Your task to perform on an android device: uninstall "Life360: Find Family & Friends" Image 0: 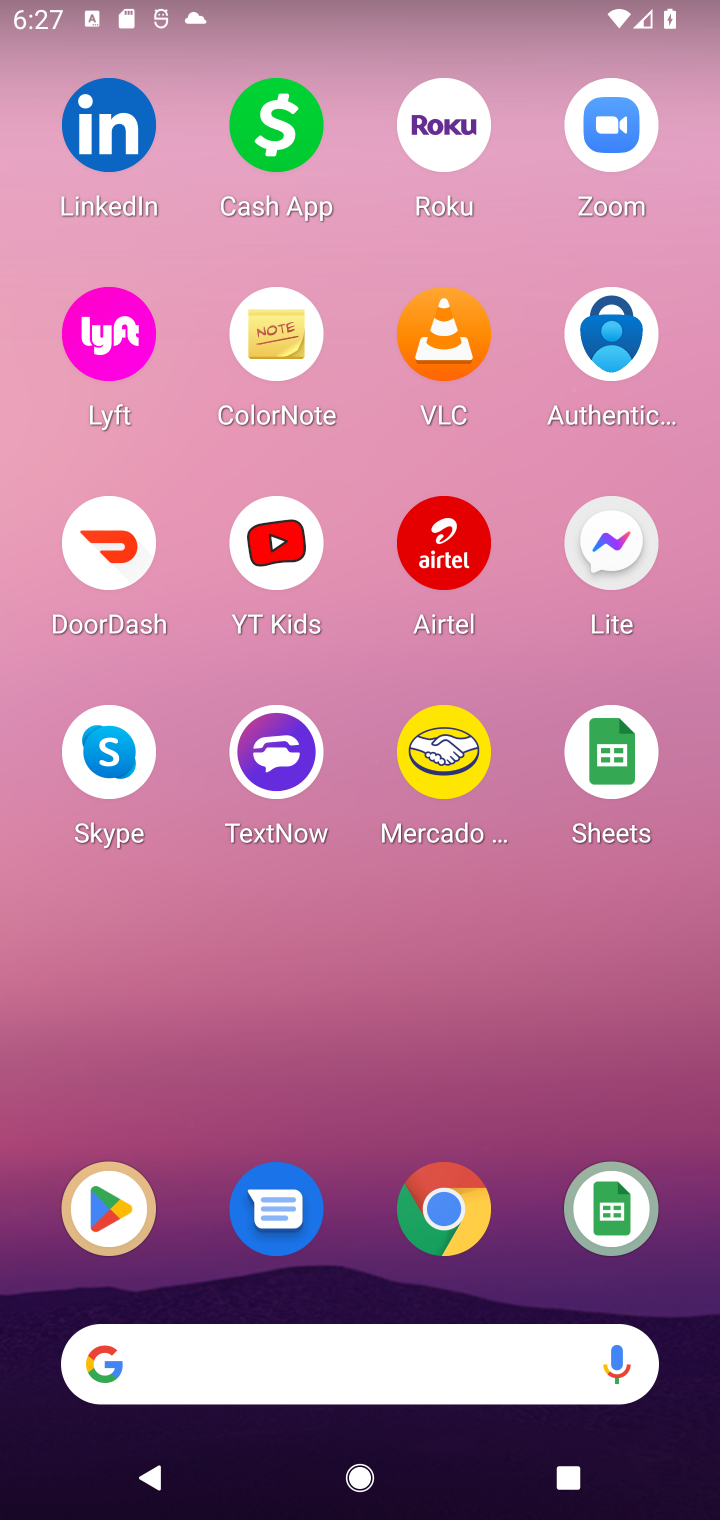
Step 0: click (104, 1222)
Your task to perform on an android device: uninstall "Life360: Find Family & Friends" Image 1: 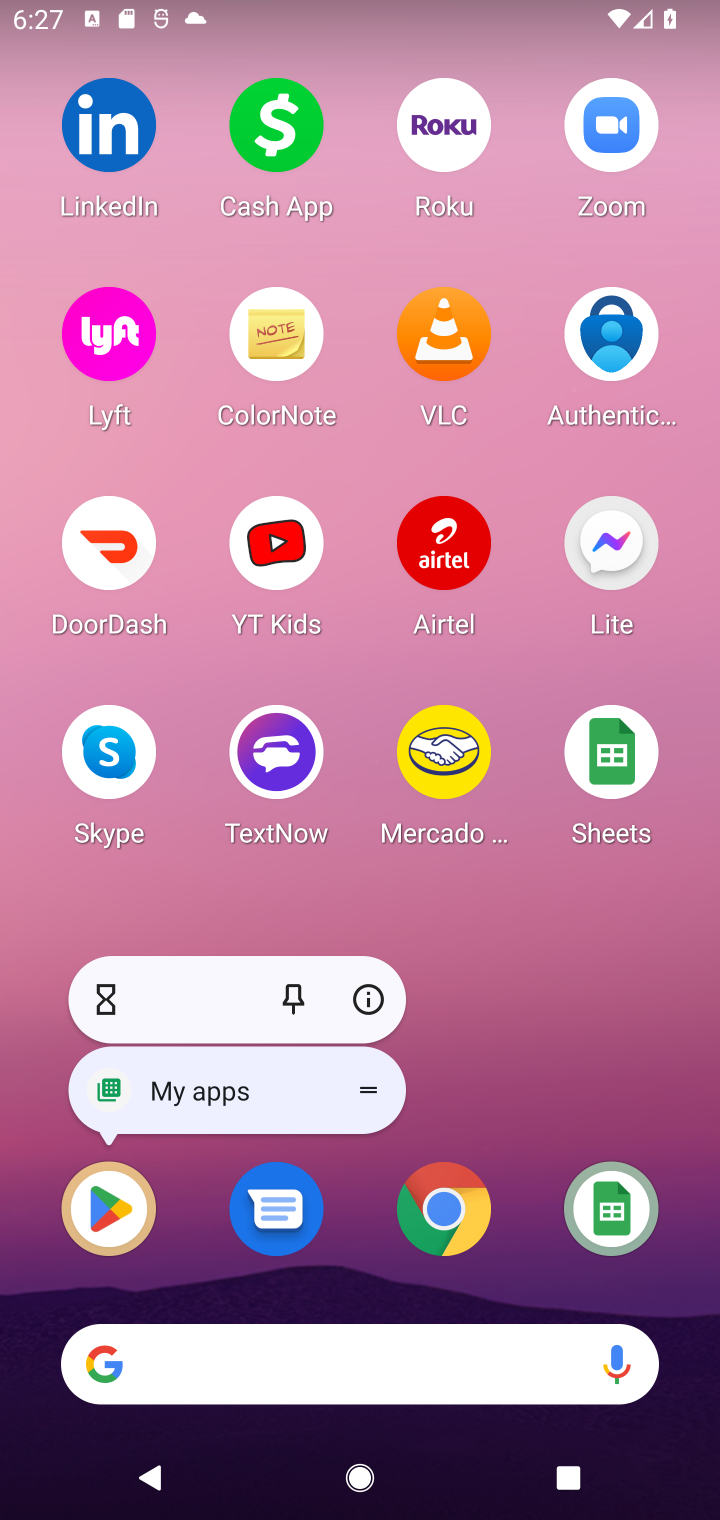
Step 1: click (104, 1222)
Your task to perform on an android device: uninstall "Life360: Find Family & Friends" Image 2: 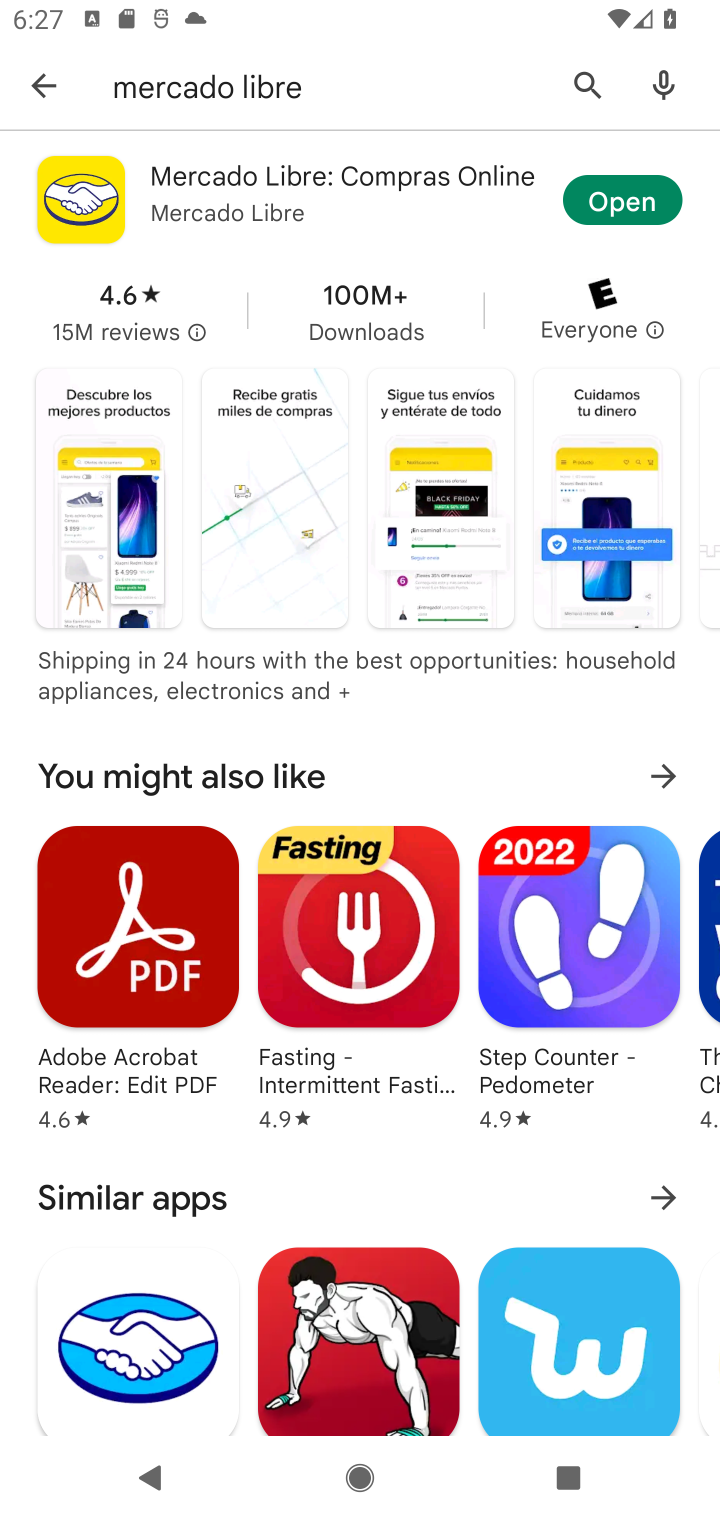
Step 2: click (586, 92)
Your task to perform on an android device: uninstall "Life360: Find Family & Friends" Image 3: 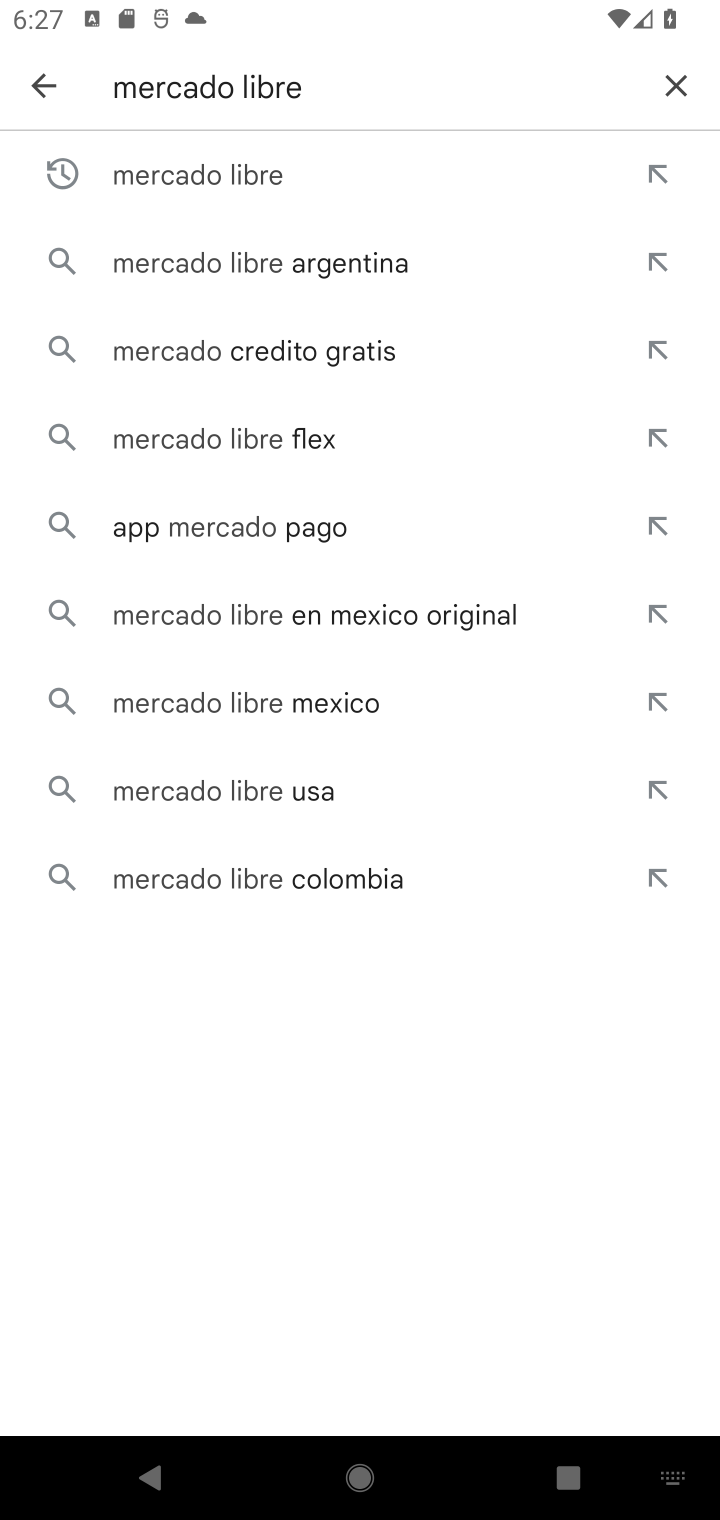
Step 3: click (671, 99)
Your task to perform on an android device: uninstall "Life360: Find Family & Friends" Image 4: 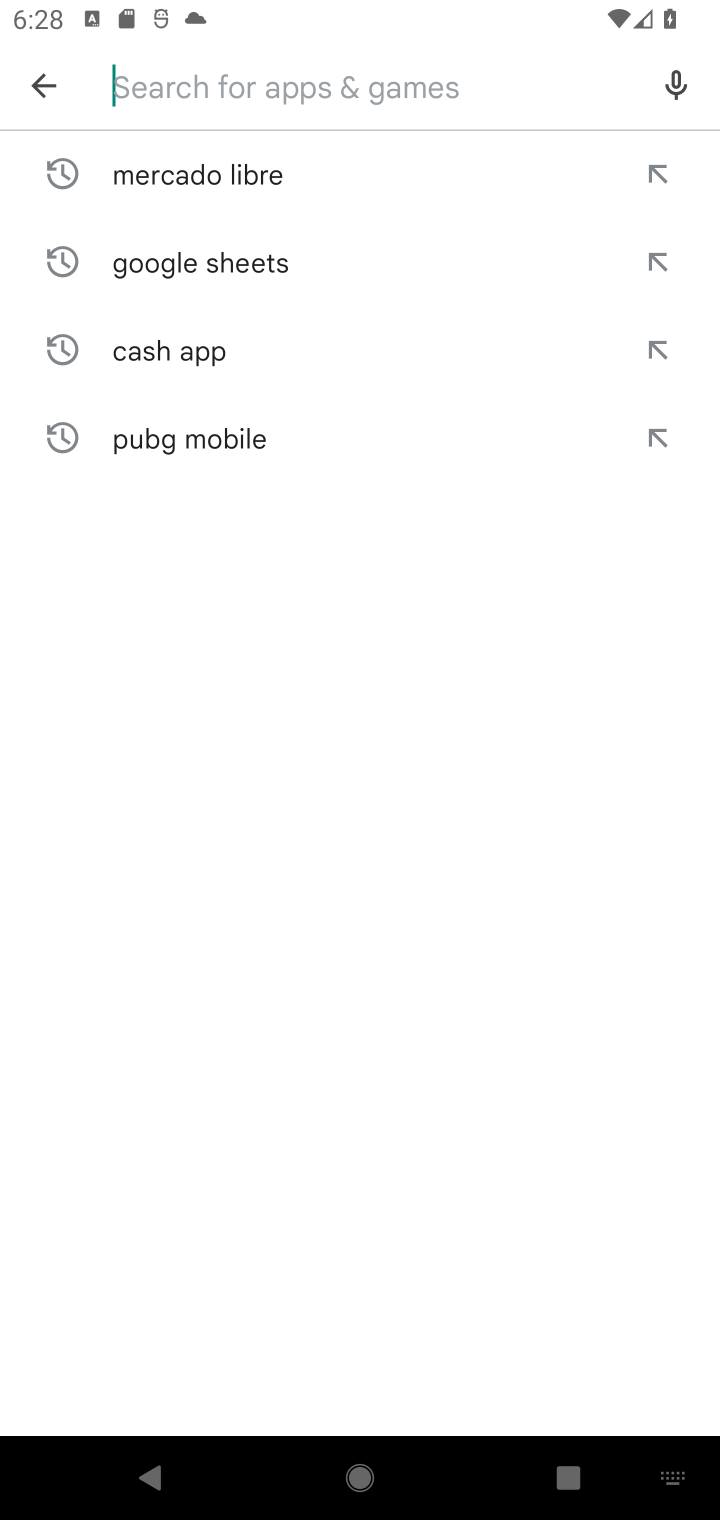
Step 4: type "Life360: Find Family & Friends"
Your task to perform on an android device: uninstall "Life360: Find Family & Friends" Image 5: 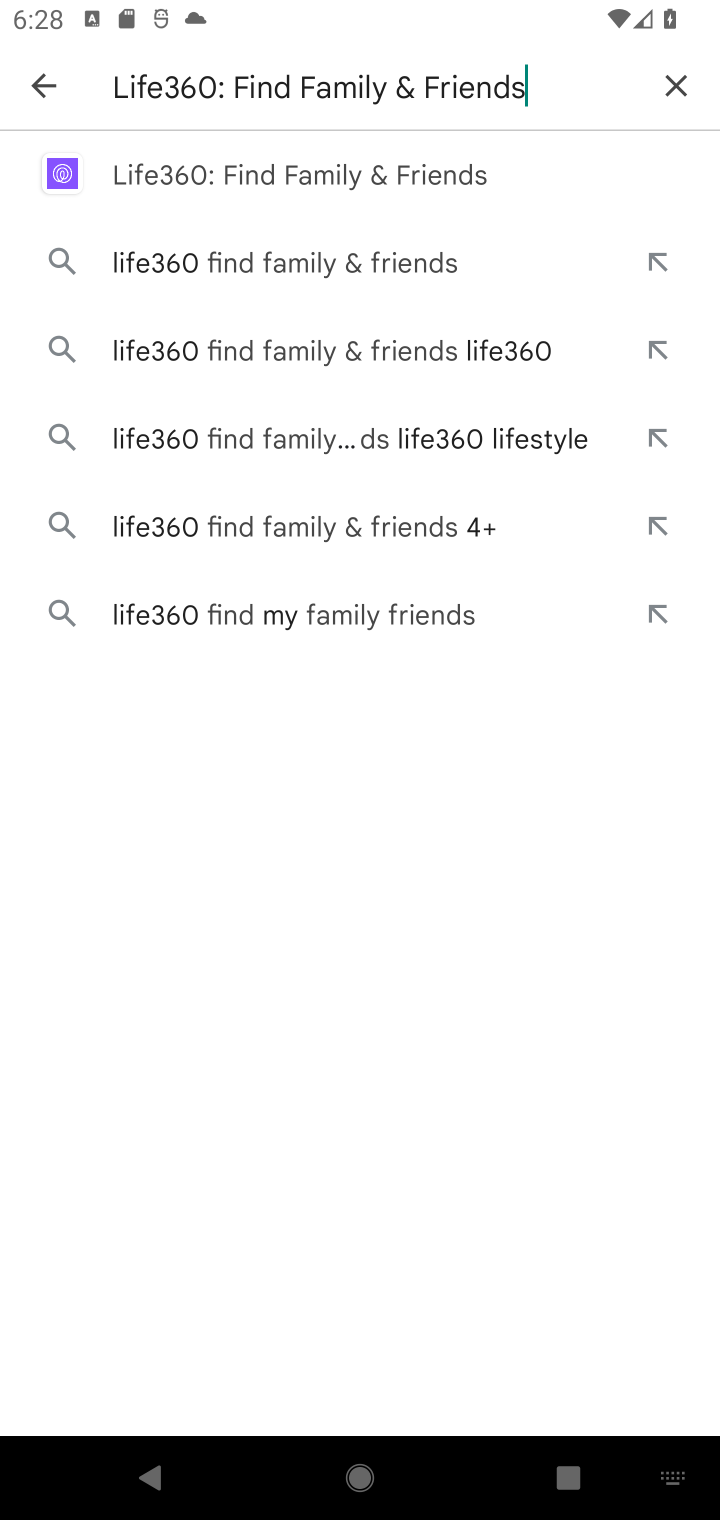
Step 5: click (182, 204)
Your task to perform on an android device: uninstall "Life360: Find Family & Friends" Image 6: 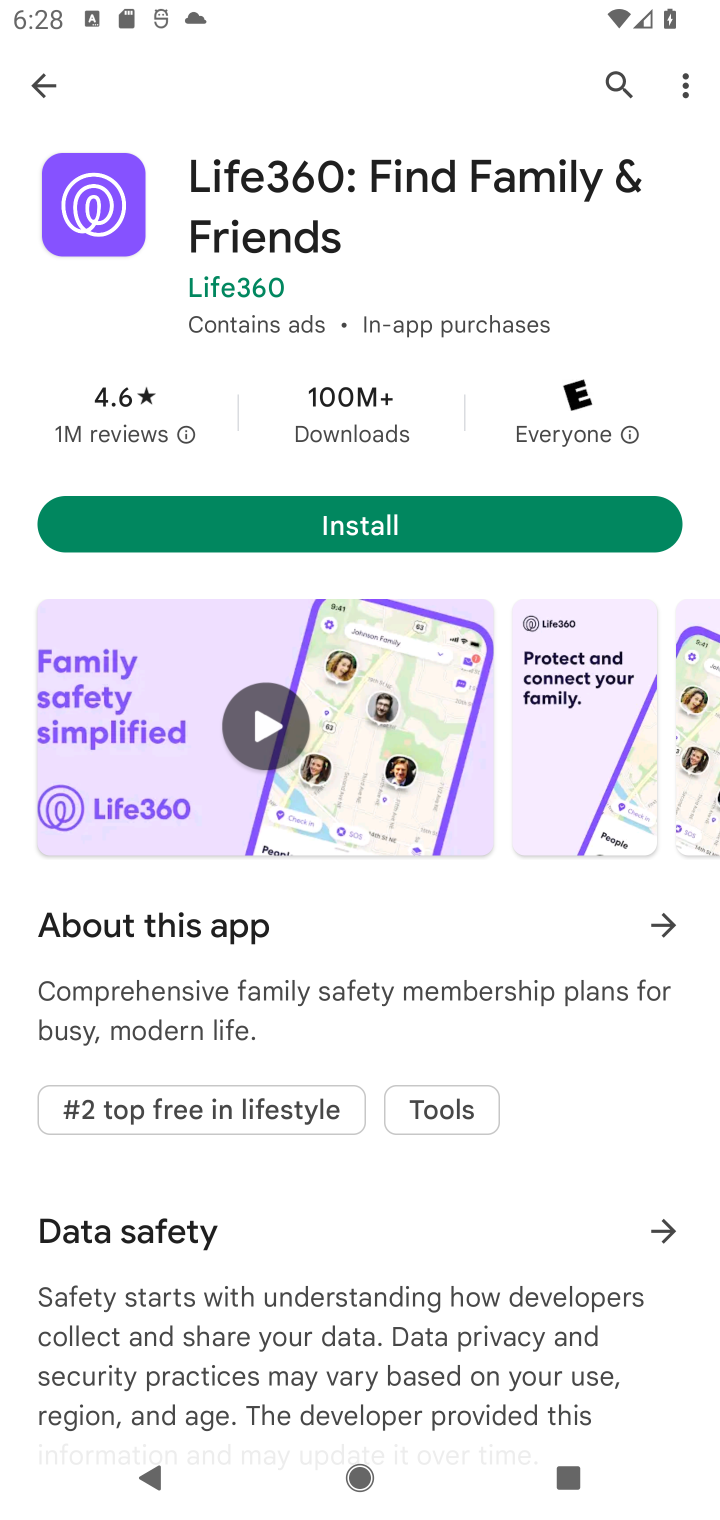
Step 6: task complete